Your task to perform on an android device: Open the Play Movies app and select the watchlist tab. Image 0: 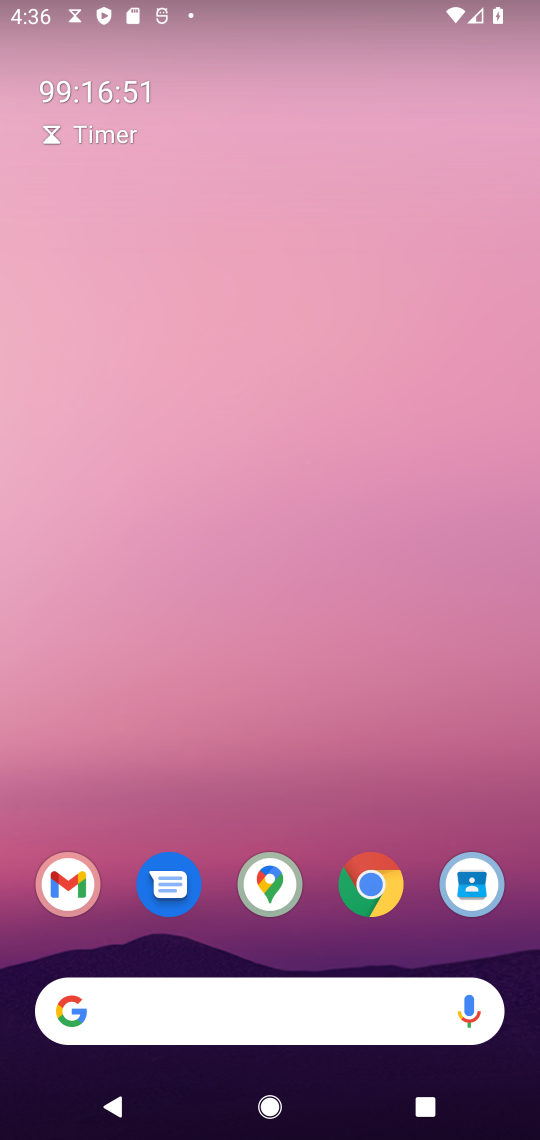
Step 0: drag from (283, 1060) to (457, 337)
Your task to perform on an android device: Open the Play Movies app and select the watchlist tab. Image 1: 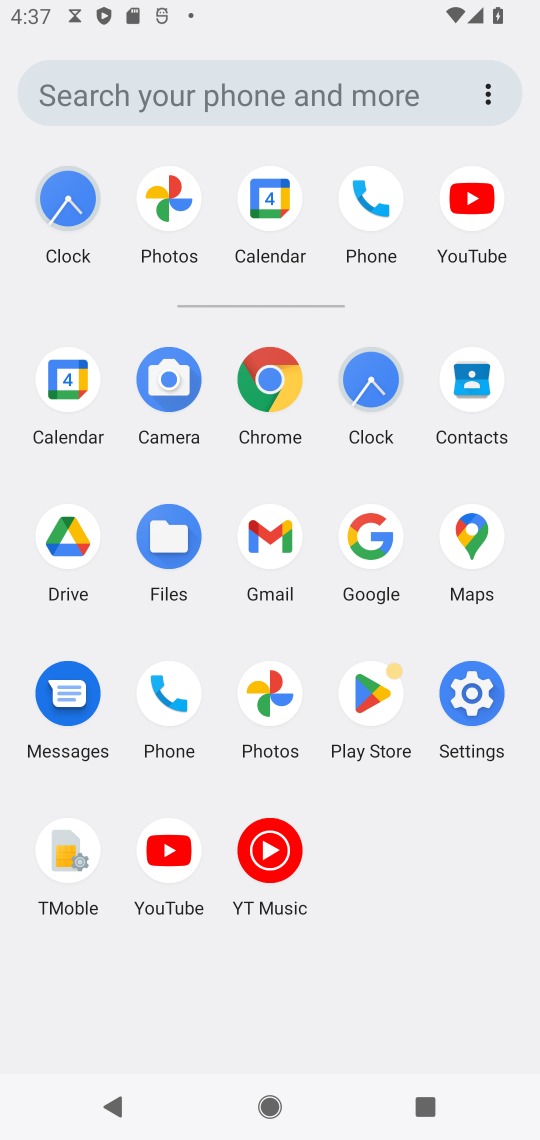
Step 1: click (278, 838)
Your task to perform on an android device: Open the Play Movies app and select the watchlist tab. Image 2: 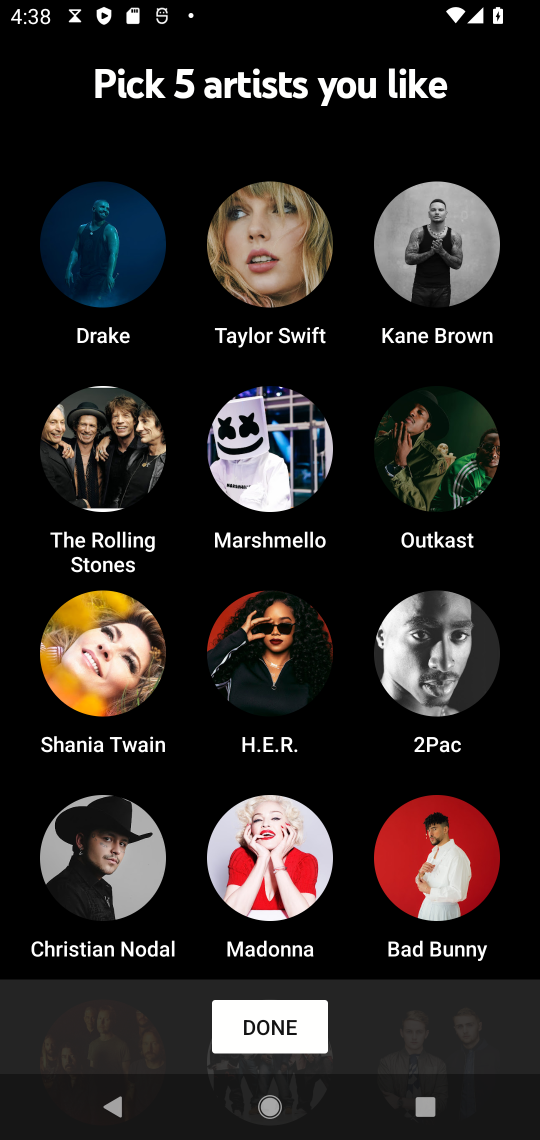
Step 2: task complete